Your task to perform on an android device: When is my next meeting? Image 0: 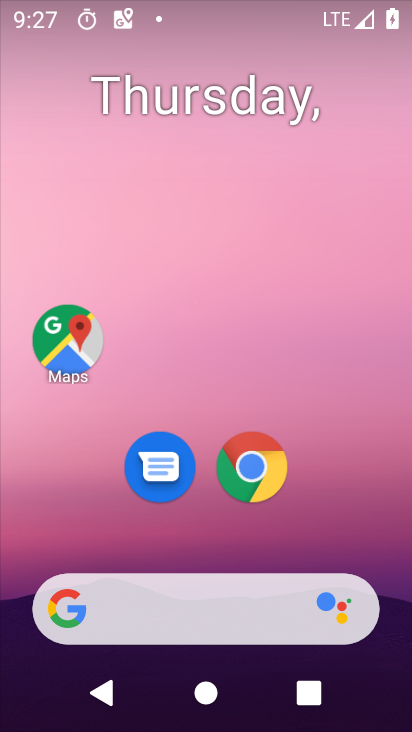
Step 0: drag from (320, 562) to (296, 4)
Your task to perform on an android device: When is my next meeting? Image 1: 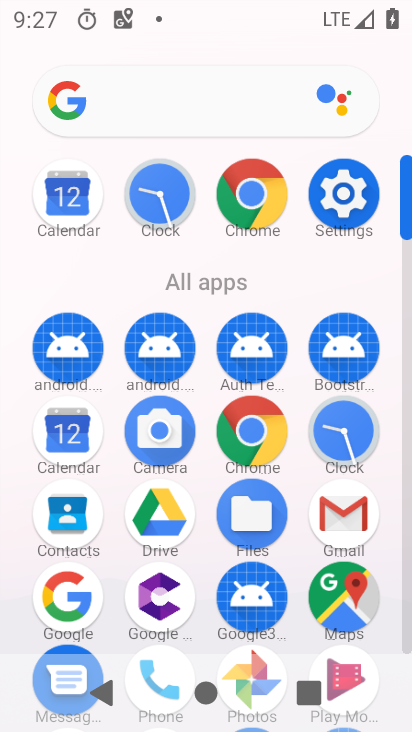
Step 1: click (72, 440)
Your task to perform on an android device: When is my next meeting? Image 2: 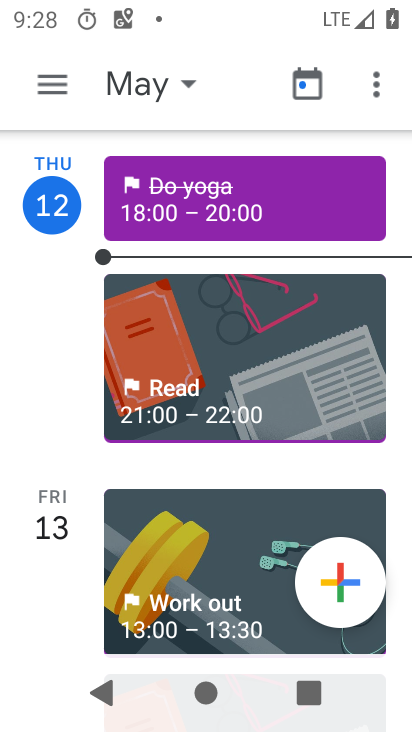
Step 2: task complete